Your task to perform on an android device: Open wifi settings Image 0: 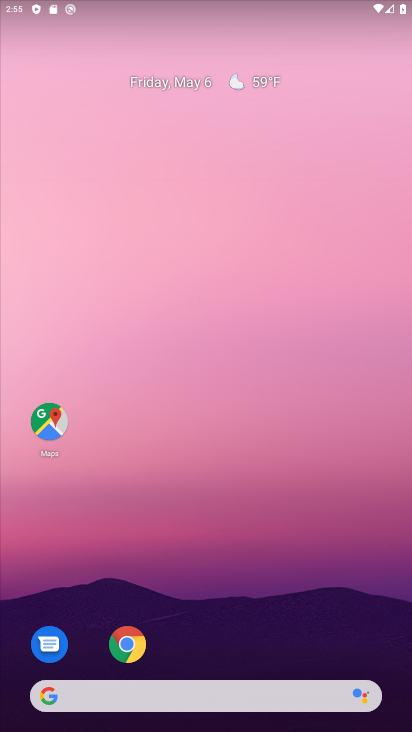
Step 0: drag from (207, 730) to (209, 139)
Your task to perform on an android device: Open wifi settings Image 1: 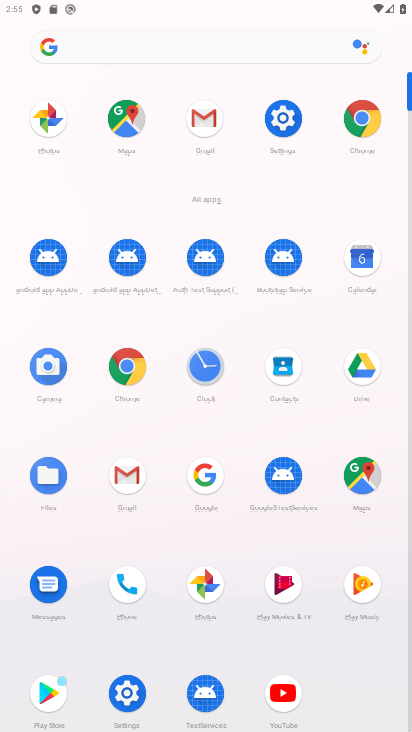
Step 1: click (281, 118)
Your task to perform on an android device: Open wifi settings Image 2: 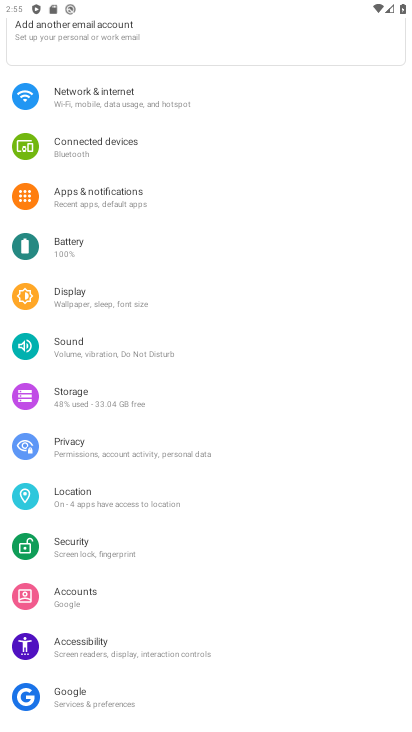
Step 2: click (110, 101)
Your task to perform on an android device: Open wifi settings Image 3: 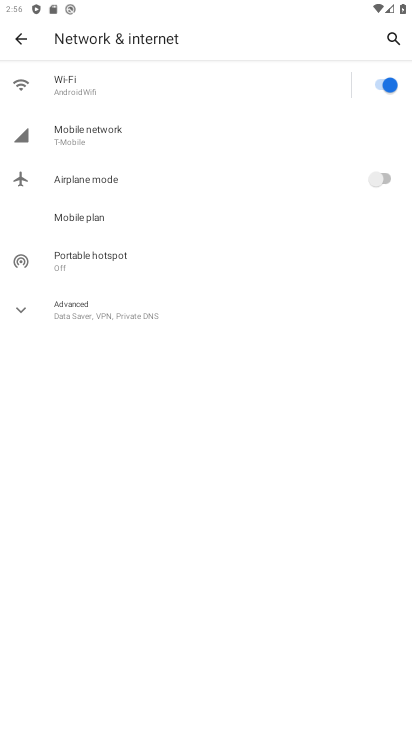
Step 3: click (94, 84)
Your task to perform on an android device: Open wifi settings Image 4: 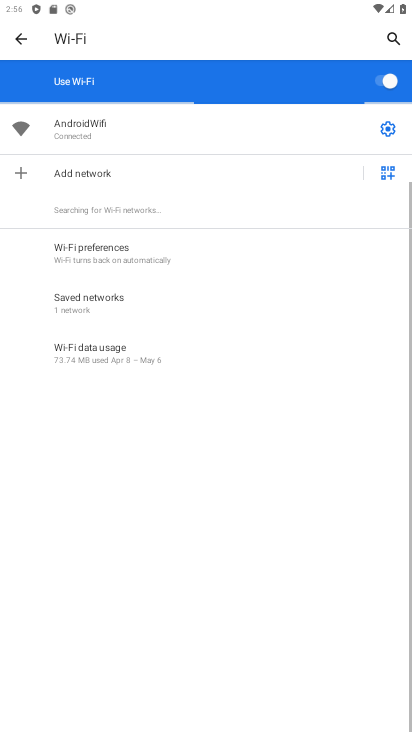
Step 4: task complete